Your task to perform on an android device: Open Yahoo.com Image 0: 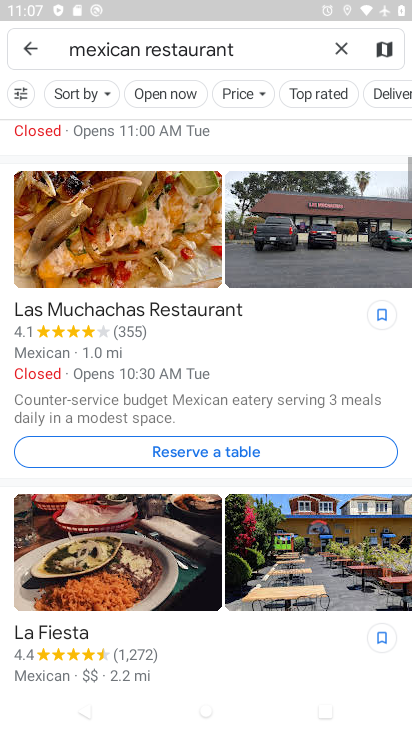
Step 0: press home button
Your task to perform on an android device: Open Yahoo.com Image 1: 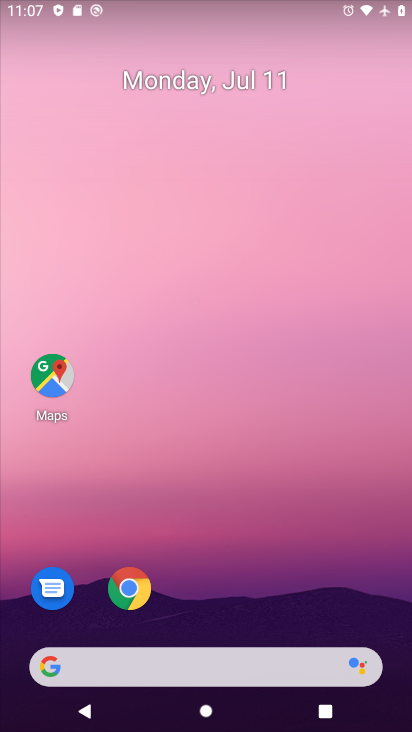
Step 1: click (142, 590)
Your task to perform on an android device: Open Yahoo.com Image 2: 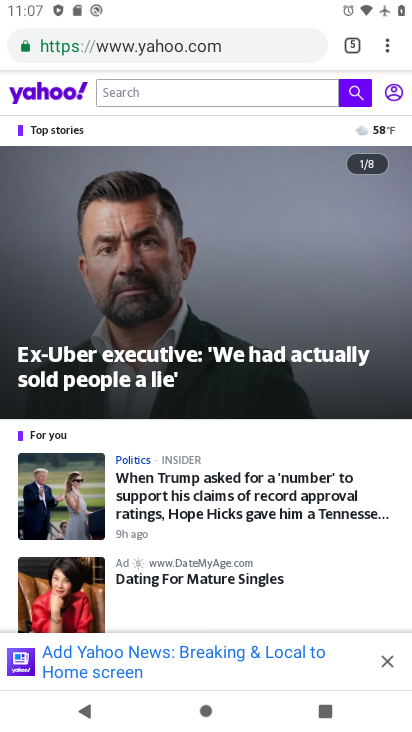
Step 2: task complete